Your task to perform on an android device: change notification settings in the gmail app Image 0: 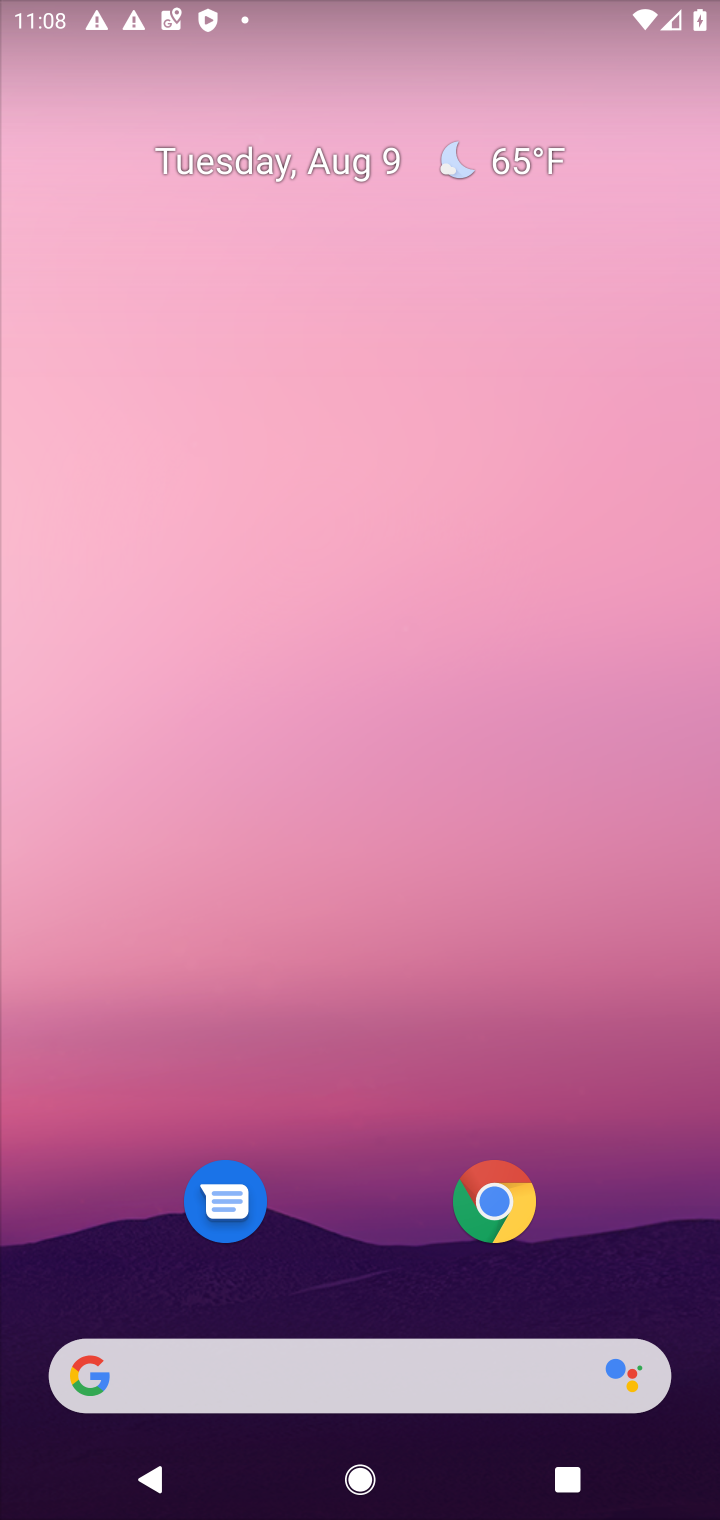
Step 0: press home button
Your task to perform on an android device: change notification settings in the gmail app Image 1: 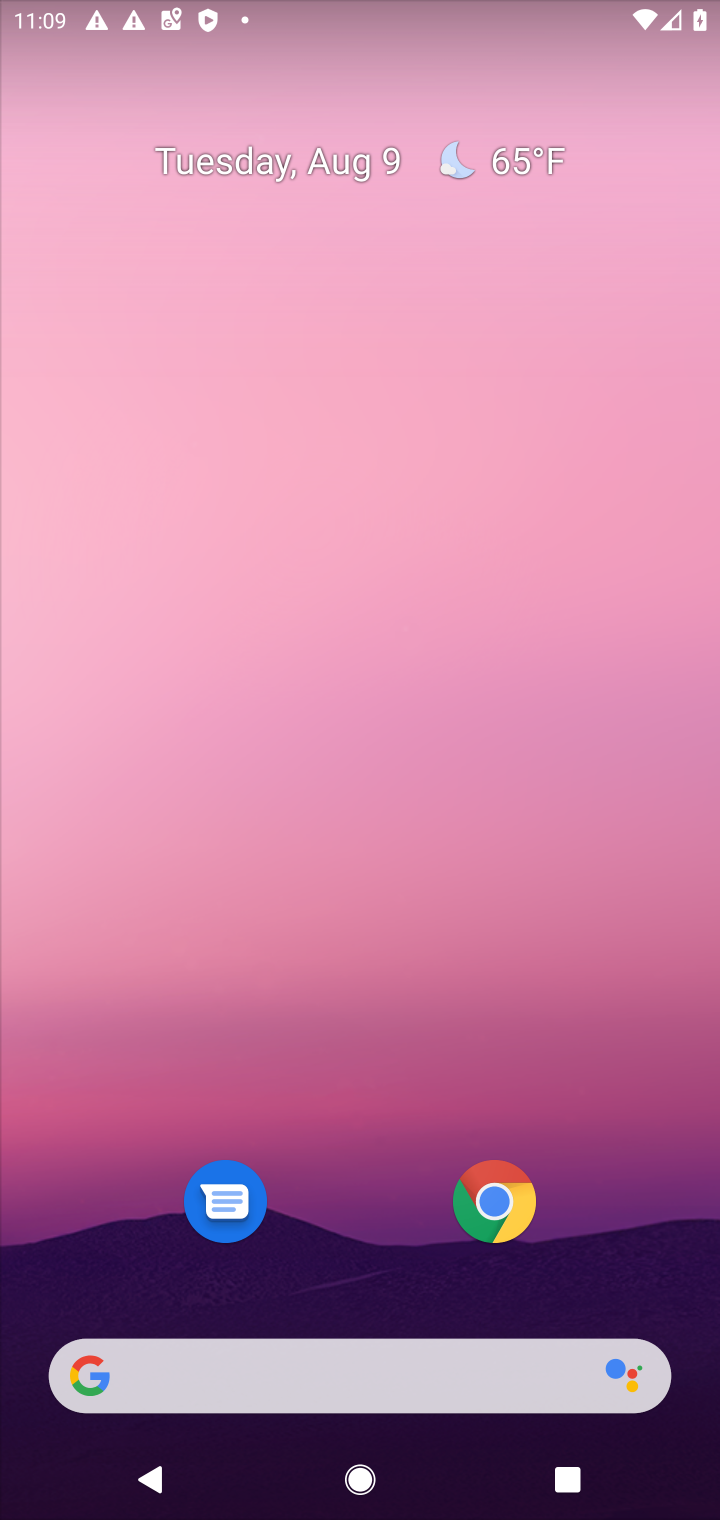
Step 1: drag from (382, 1244) to (402, 168)
Your task to perform on an android device: change notification settings in the gmail app Image 2: 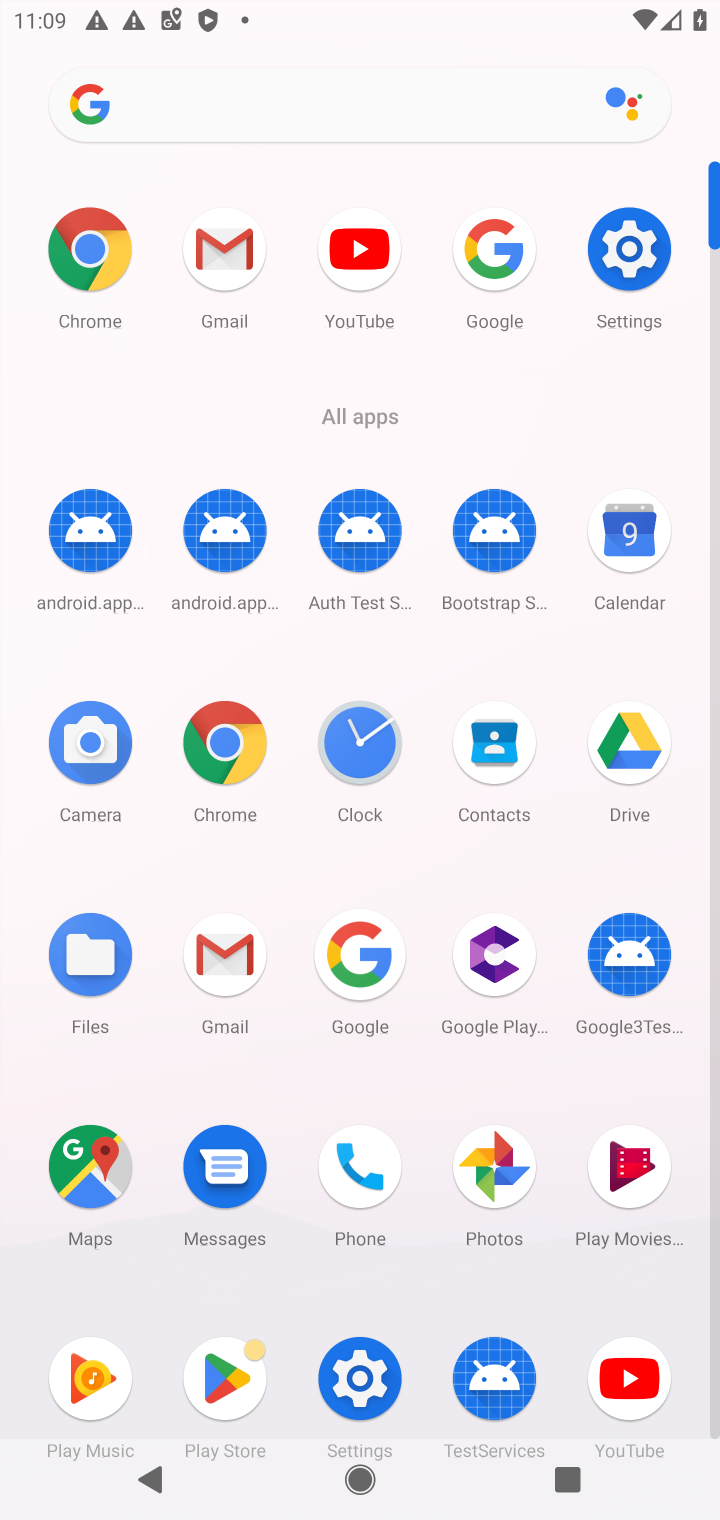
Step 2: click (218, 238)
Your task to perform on an android device: change notification settings in the gmail app Image 3: 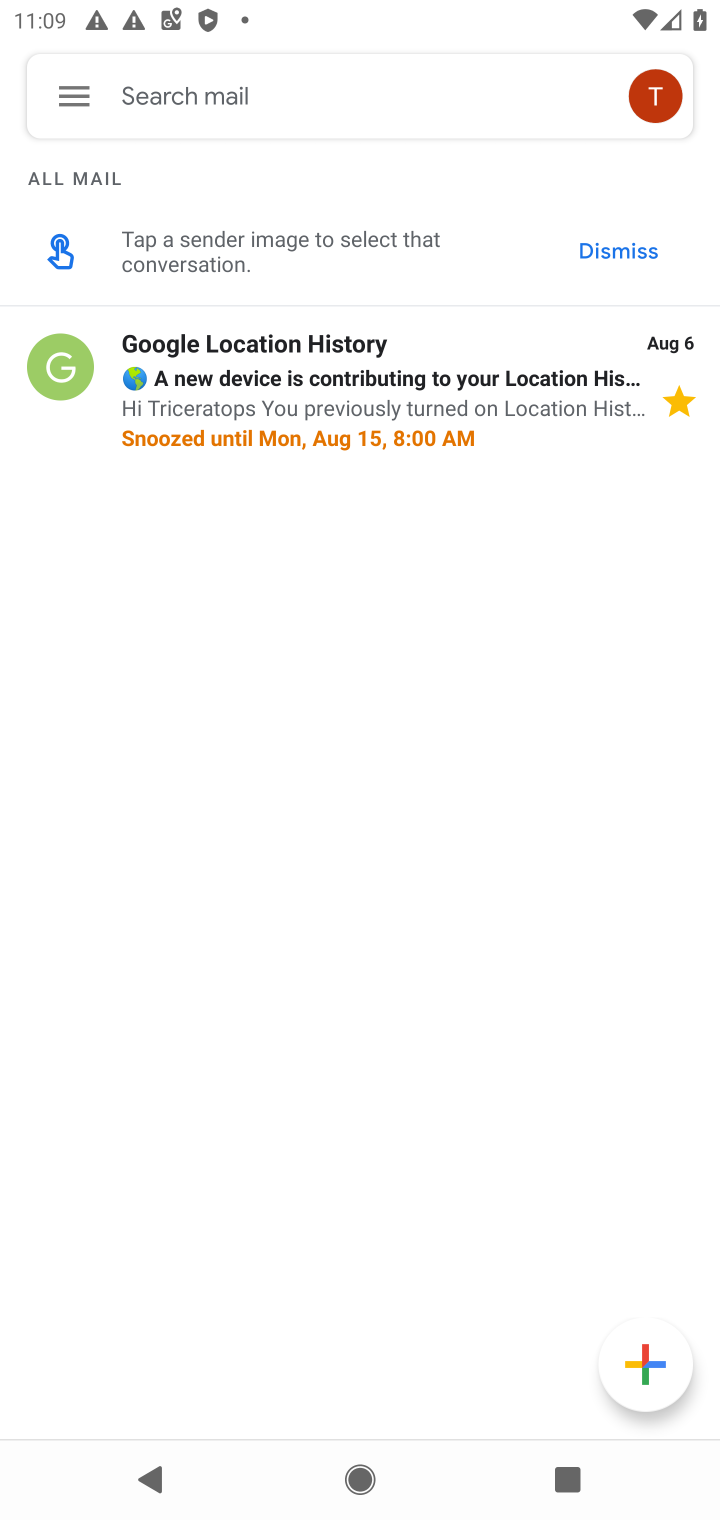
Step 3: click (73, 92)
Your task to perform on an android device: change notification settings in the gmail app Image 4: 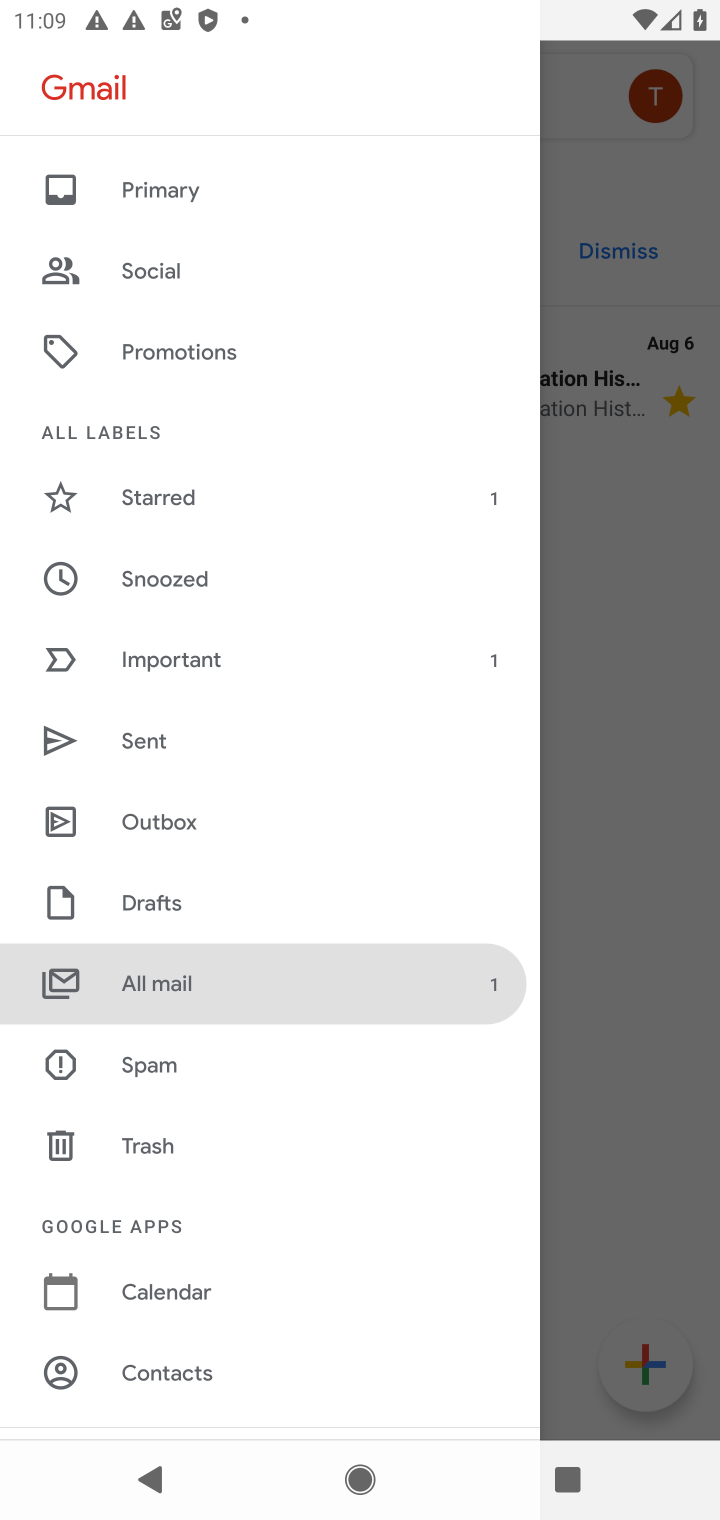
Step 4: drag from (243, 1230) to (279, 401)
Your task to perform on an android device: change notification settings in the gmail app Image 5: 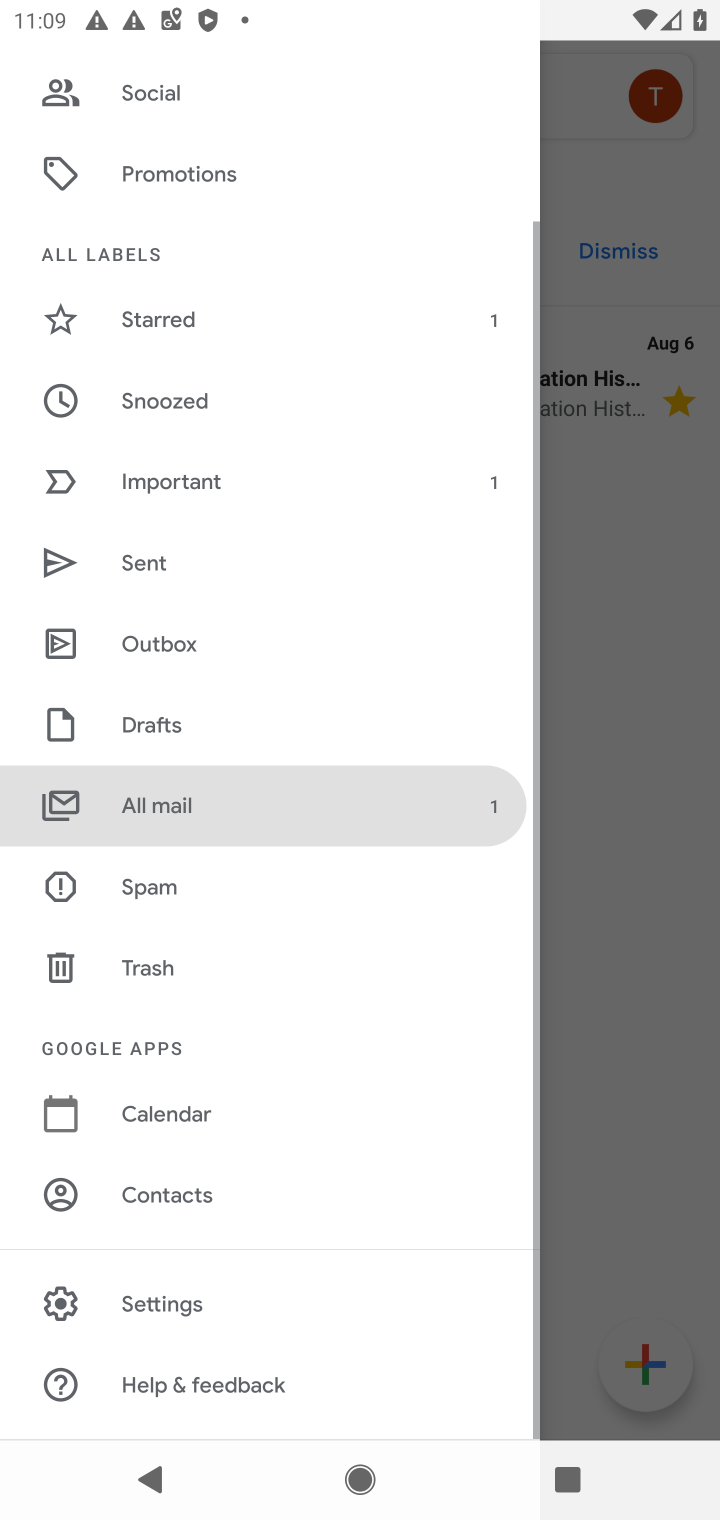
Step 5: click (148, 1304)
Your task to perform on an android device: change notification settings in the gmail app Image 6: 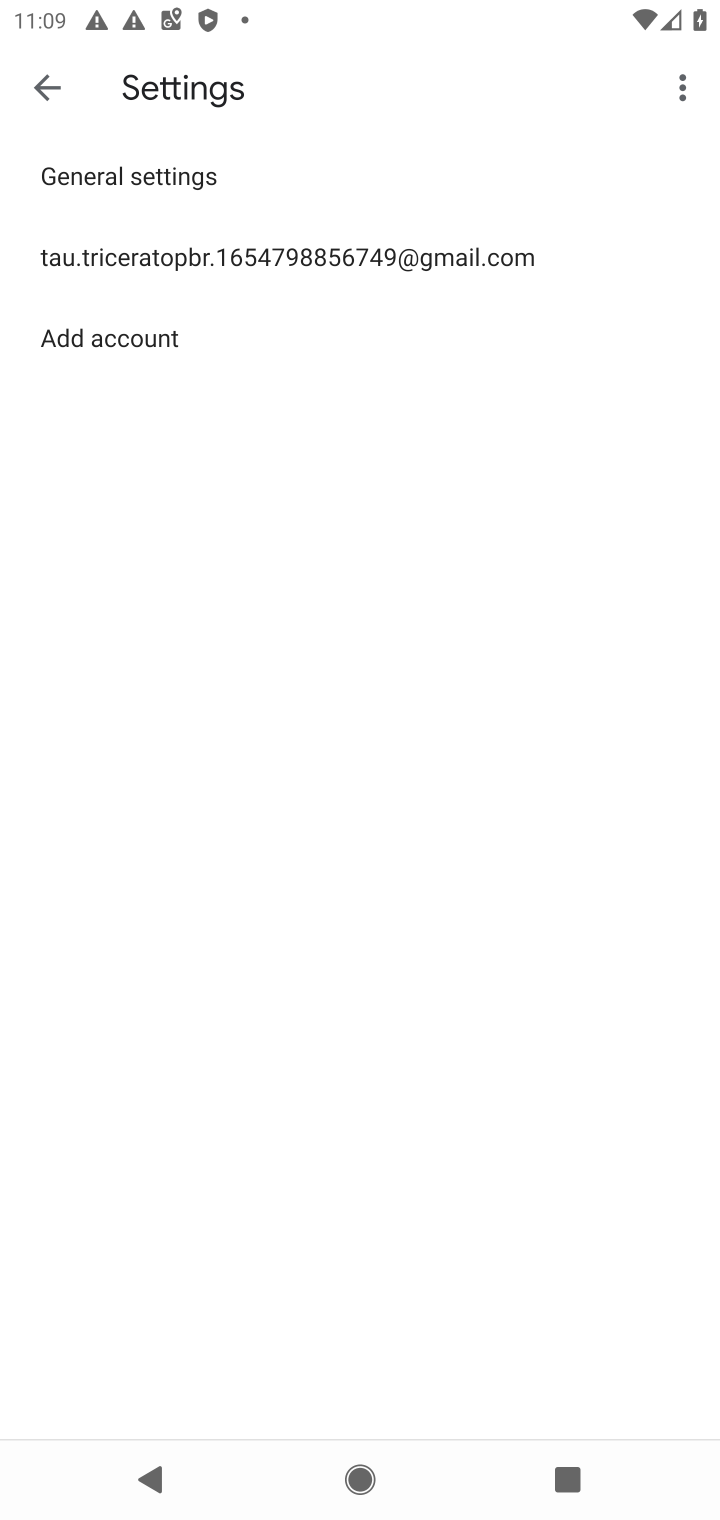
Step 6: click (144, 251)
Your task to perform on an android device: change notification settings in the gmail app Image 7: 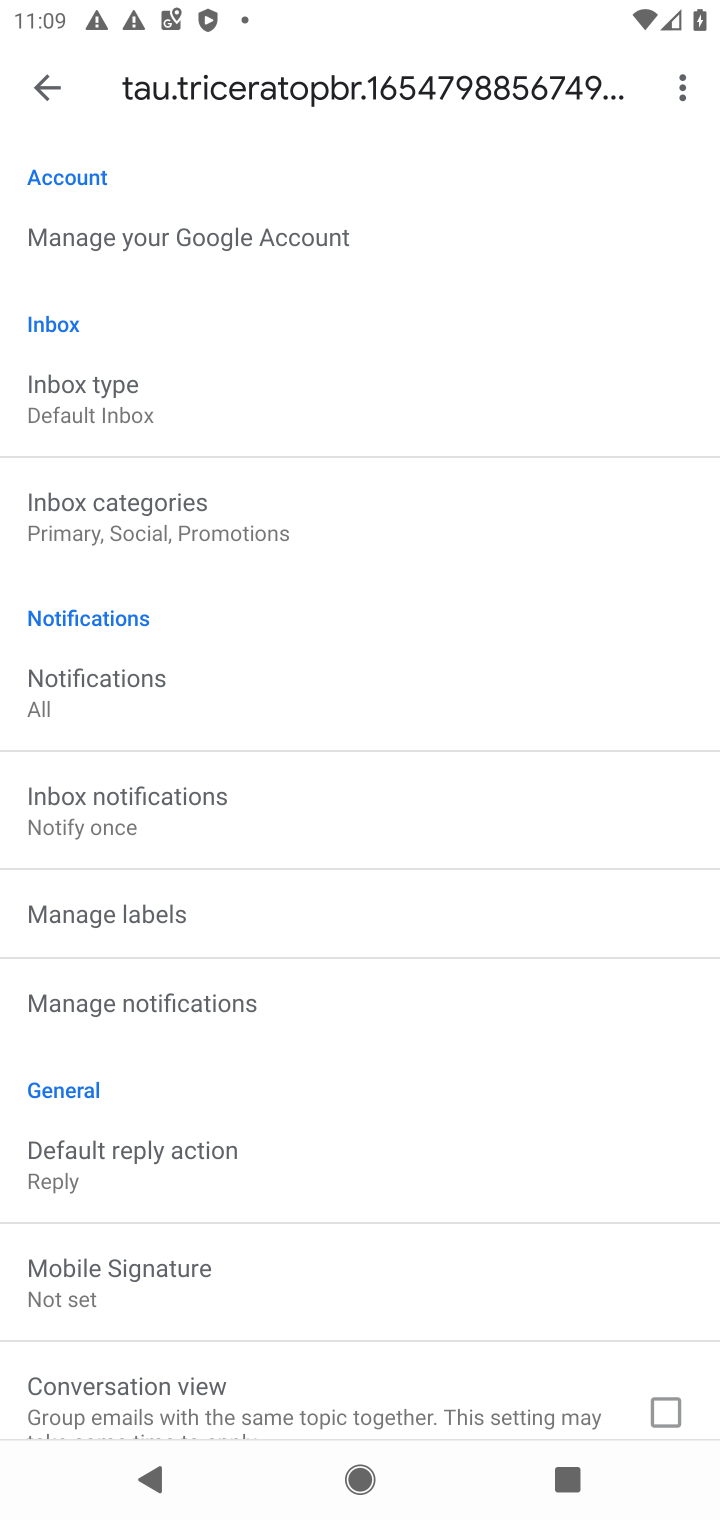
Step 7: click (86, 998)
Your task to perform on an android device: change notification settings in the gmail app Image 8: 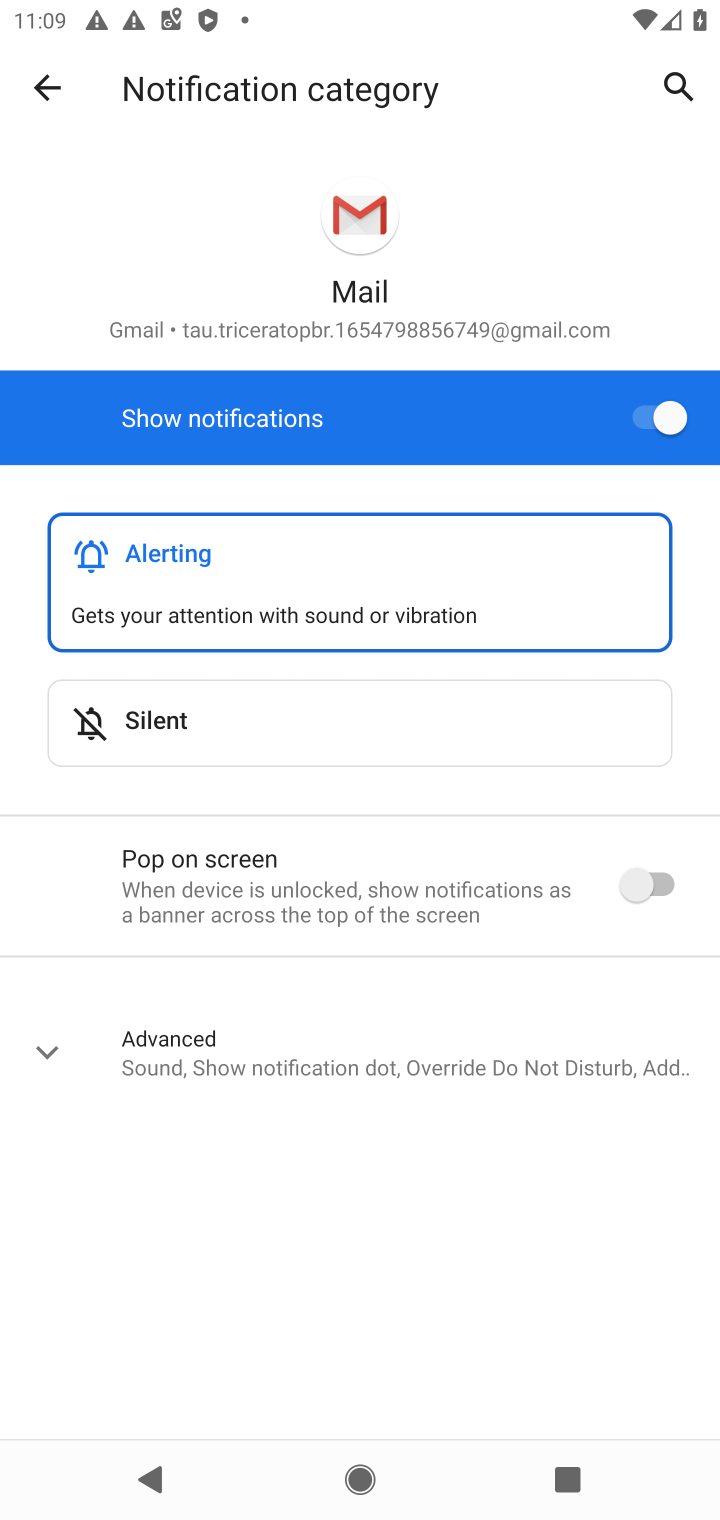
Step 8: click (659, 418)
Your task to perform on an android device: change notification settings in the gmail app Image 9: 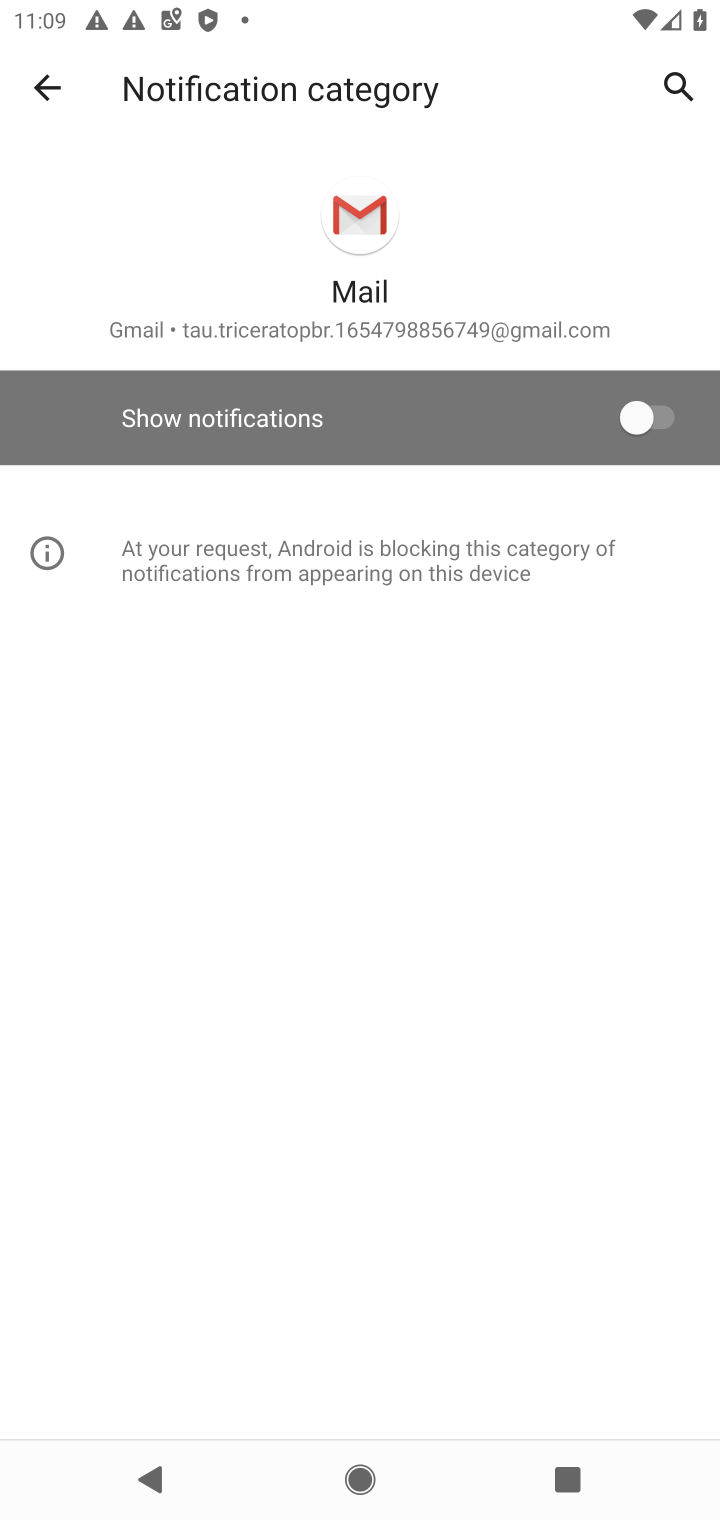
Step 9: task complete